Your task to perform on an android device: Open maps Image 0: 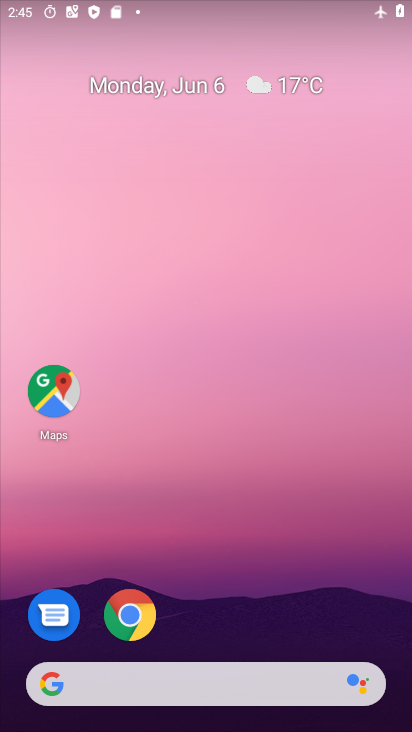
Step 0: drag from (203, 631) to (227, 139)
Your task to perform on an android device: Open maps Image 1: 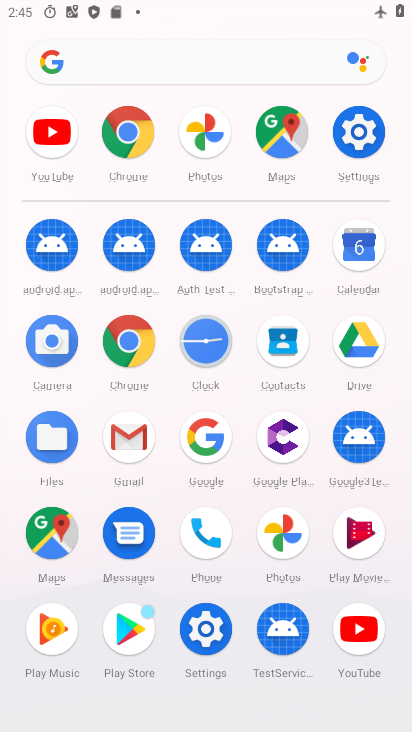
Step 1: click (62, 523)
Your task to perform on an android device: Open maps Image 2: 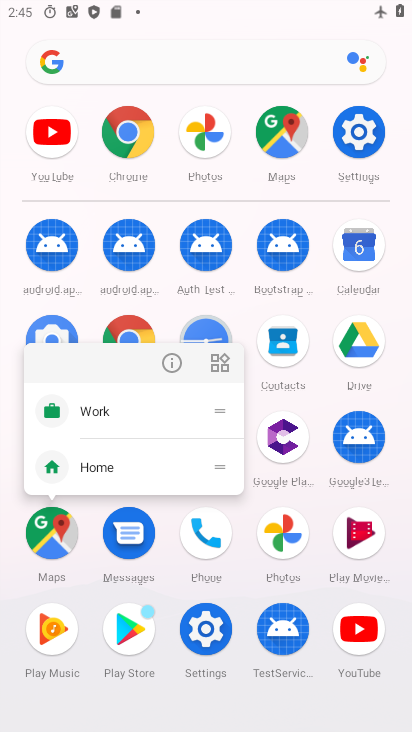
Step 2: click (168, 357)
Your task to perform on an android device: Open maps Image 3: 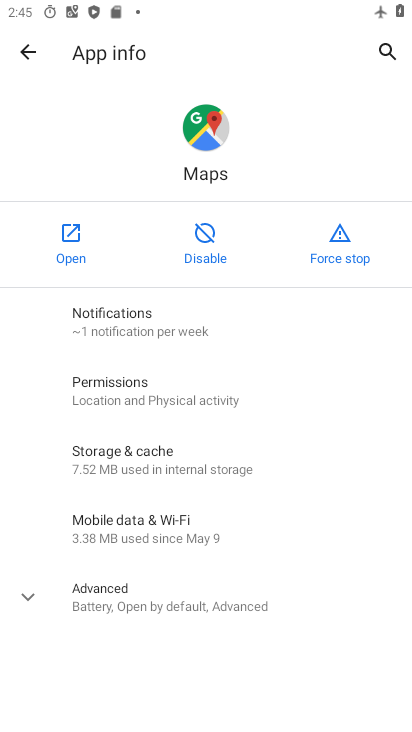
Step 3: click (74, 249)
Your task to perform on an android device: Open maps Image 4: 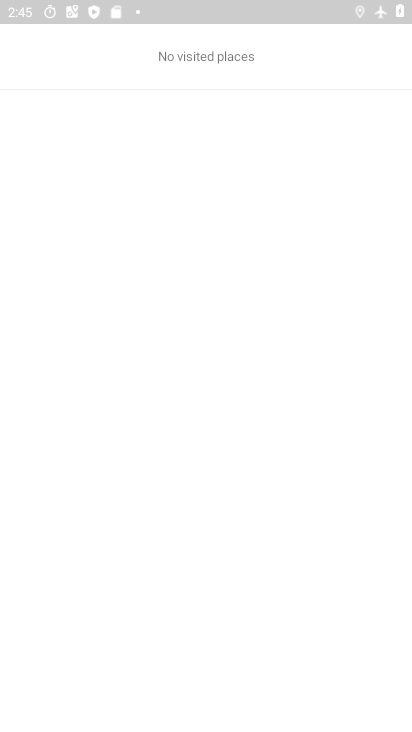
Step 4: task complete